Your task to perform on an android device: What's on my calendar tomorrow? Image 0: 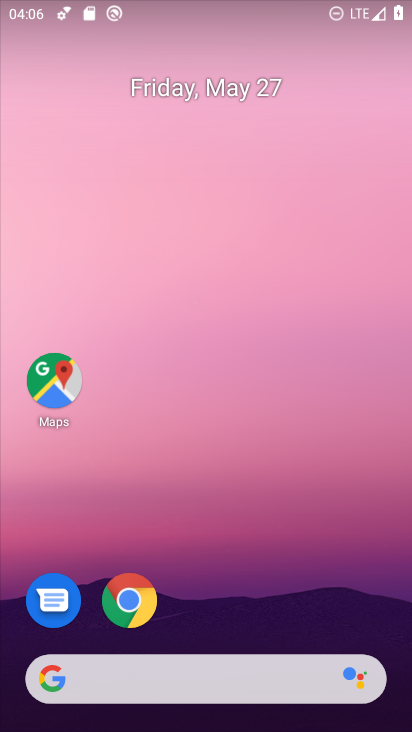
Step 0: drag from (198, 711) to (208, 155)
Your task to perform on an android device: What's on my calendar tomorrow? Image 1: 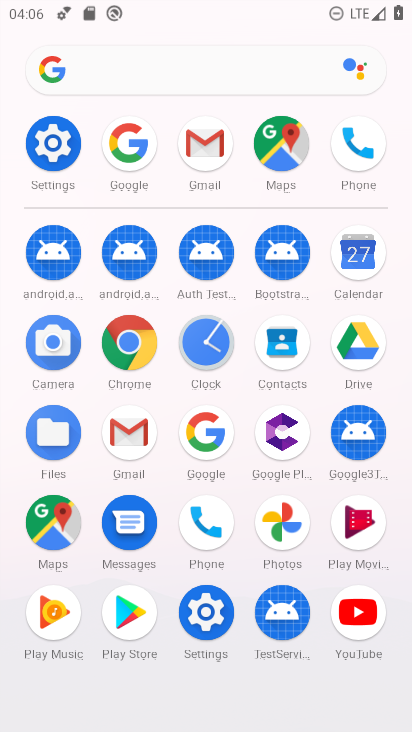
Step 1: click (361, 259)
Your task to perform on an android device: What's on my calendar tomorrow? Image 2: 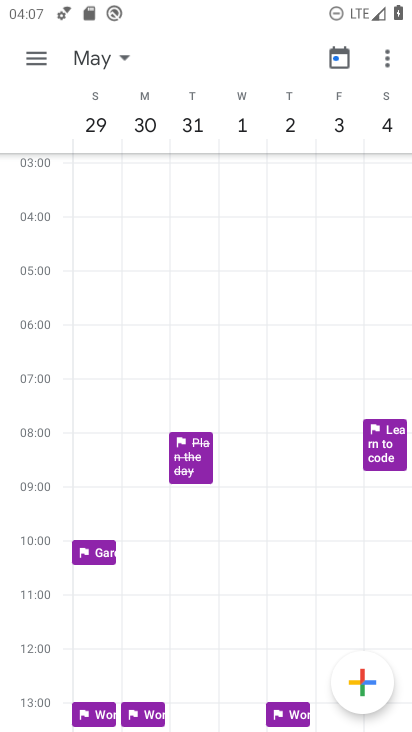
Step 2: click (94, 116)
Your task to perform on an android device: What's on my calendar tomorrow? Image 3: 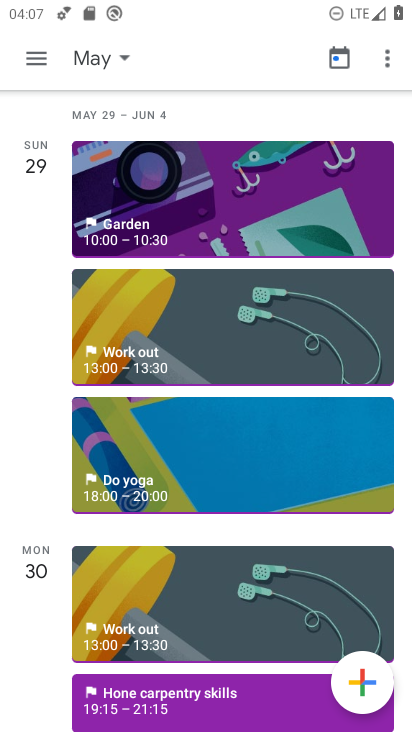
Step 3: task complete